Your task to perform on an android device: open sync settings in chrome Image 0: 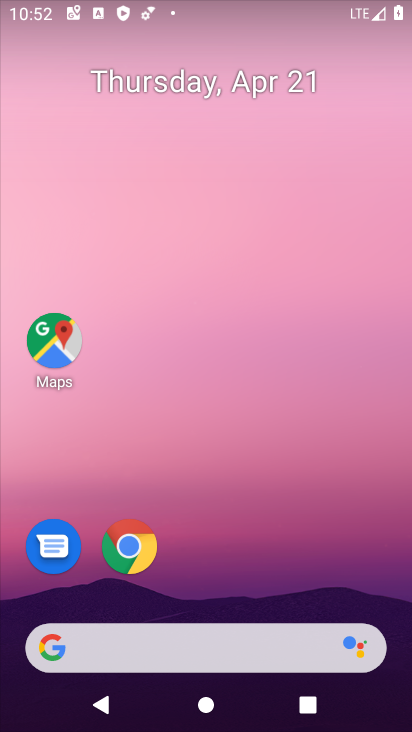
Step 0: click (126, 541)
Your task to perform on an android device: open sync settings in chrome Image 1: 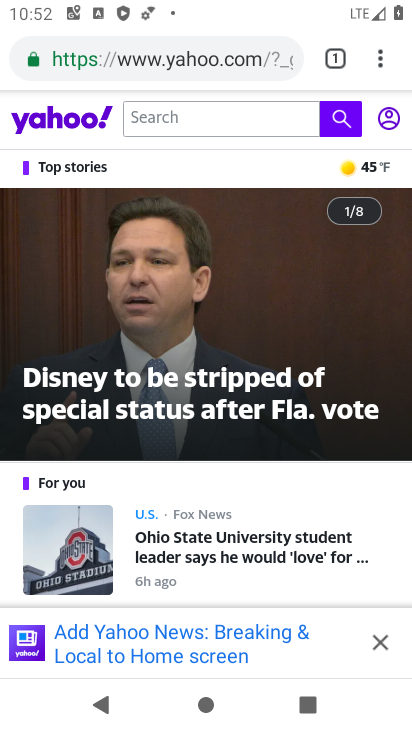
Step 1: click (374, 61)
Your task to perform on an android device: open sync settings in chrome Image 2: 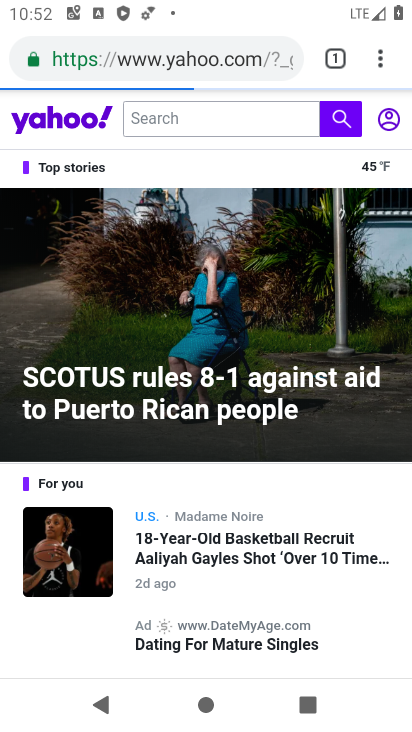
Step 2: click (380, 64)
Your task to perform on an android device: open sync settings in chrome Image 3: 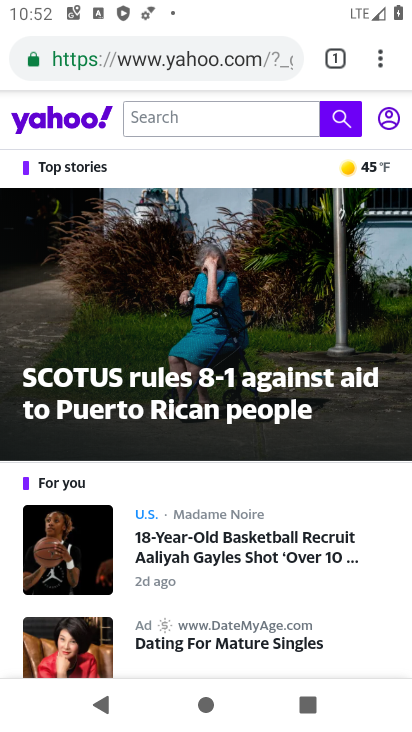
Step 3: click (380, 64)
Your task to perform on an android device: open sync settings in chrome Image 4: 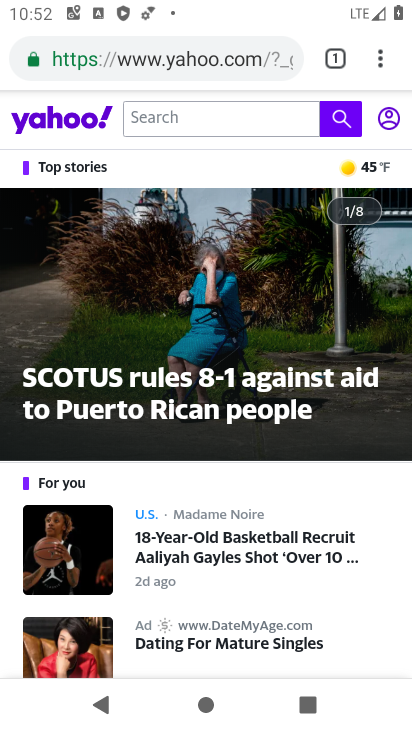
Step 4: click (380, 64)
Your task to perform on an android device: open sync settings in chrome Image 5: 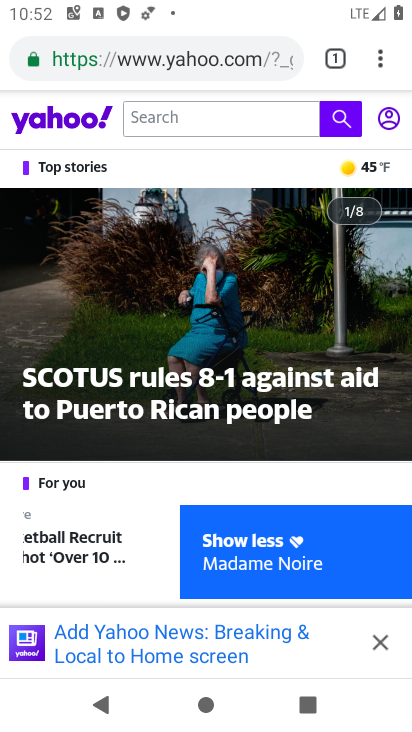
Step 5: click (378, 56)
Your task to perform on an android device: open sync settings in chrome Image 6: 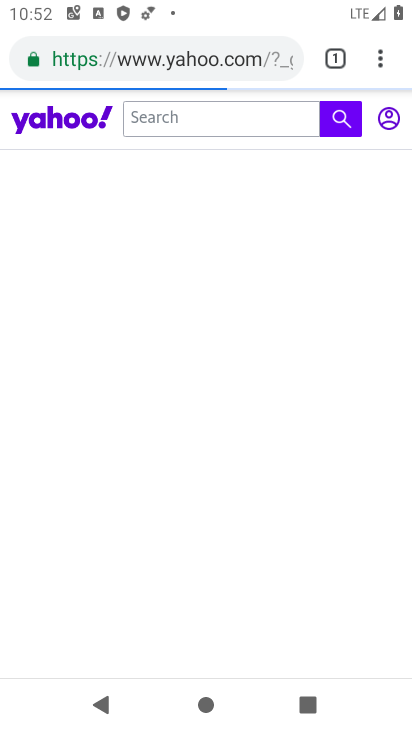
Step 6: click (378, 56)
Your task to perform on an android device: open sync settings in chrome Image 7: 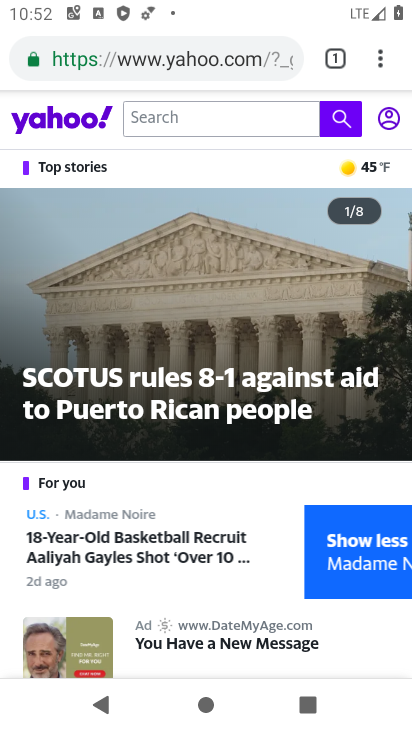
Step 7: click (376, 55)
Your task to perform on an android device: open sync settings in chrome Image 8: 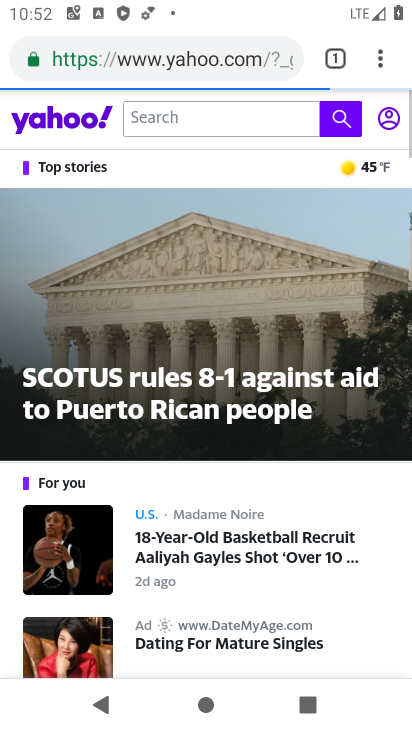
Step 8: click (376, 55)
Your task to perform on an android device: open sync settings in chrome Image 9: 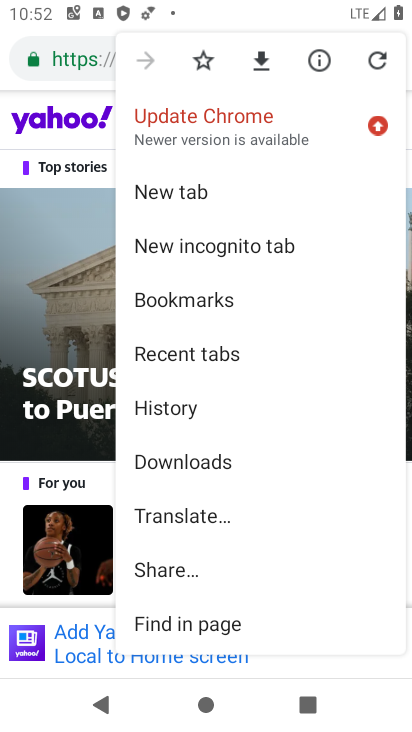
Step 9: drag from (198, 608) to (316, 132)
Your task to perform on an android device: open sync settings in chrome Image 10: 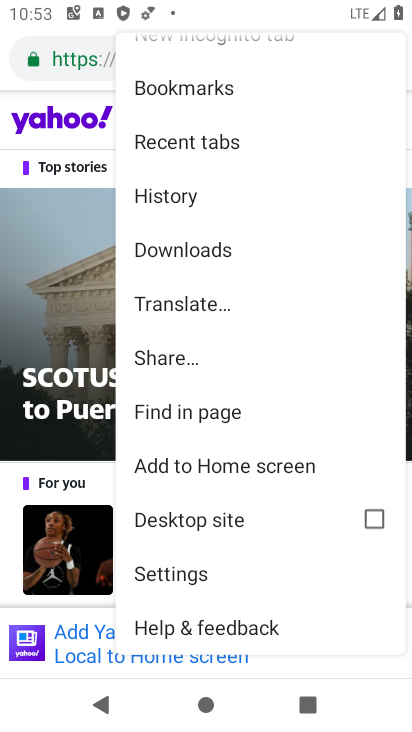
Step 10: click (164, 583)
Your task to perform on an android device: open sync settings in chrome Image 11: 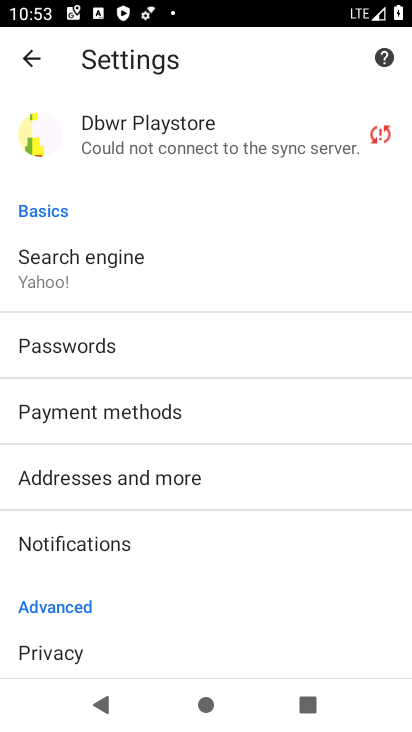
Step 11: click (139, 129)
Your task to perform on an android device: open sync settings in chrome Image 12: 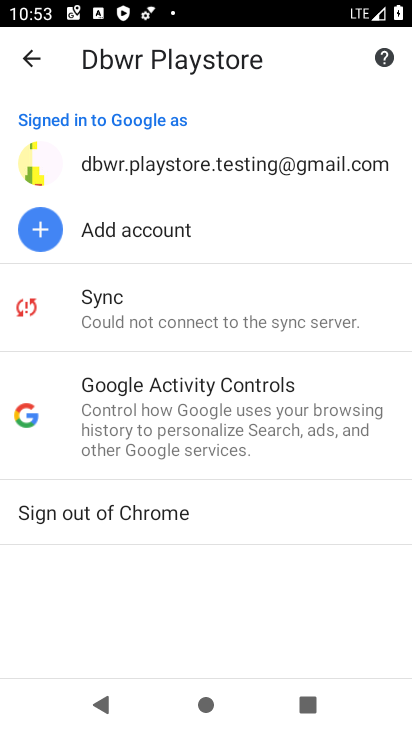
Step 12: click (85, 306)
Your task to perform on an android device: open sync settings in chrome Image 13: 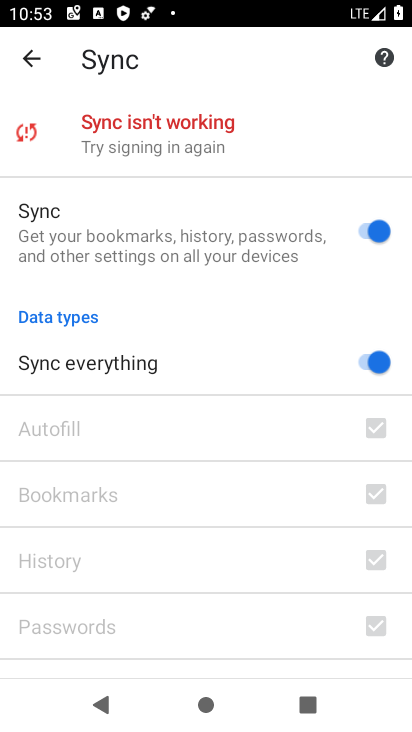
Step 13: task complete